Your task to perform on an android device: Open my contact list Image 0: 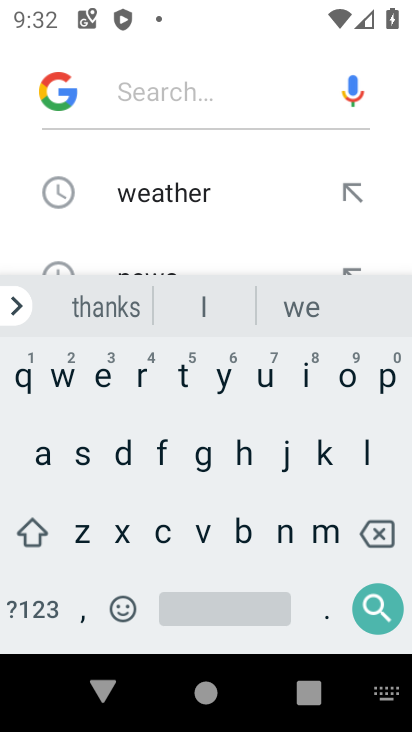
Step 0: press home button
Your task to perform on an android device: Open my contact list Image 1: 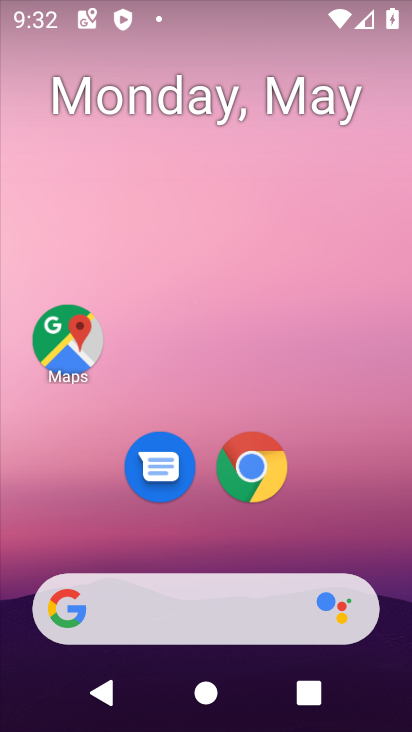
Step 1: drag from (211, 601) to (252, 42)
Your task to perform on an android device: Open my contact list Image 2: 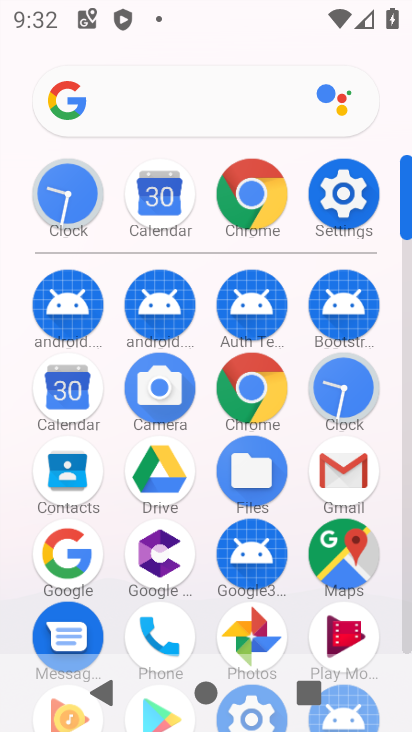
Step 2: click (151, 623)
Your task to perform on an android device: Open my contact list Image 3: 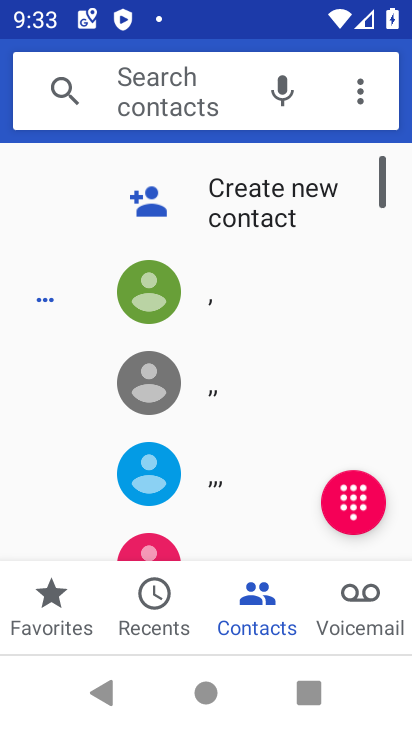
Step 3: click (261, 601)
Your task to perform on an android device: Open my contact list Image 4: 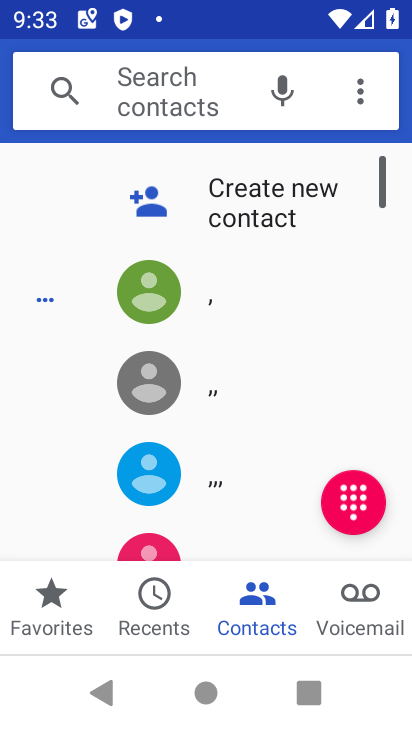
Step 4: task complete